Your task to perform on an android device: Go to ESPN.com Image 0: 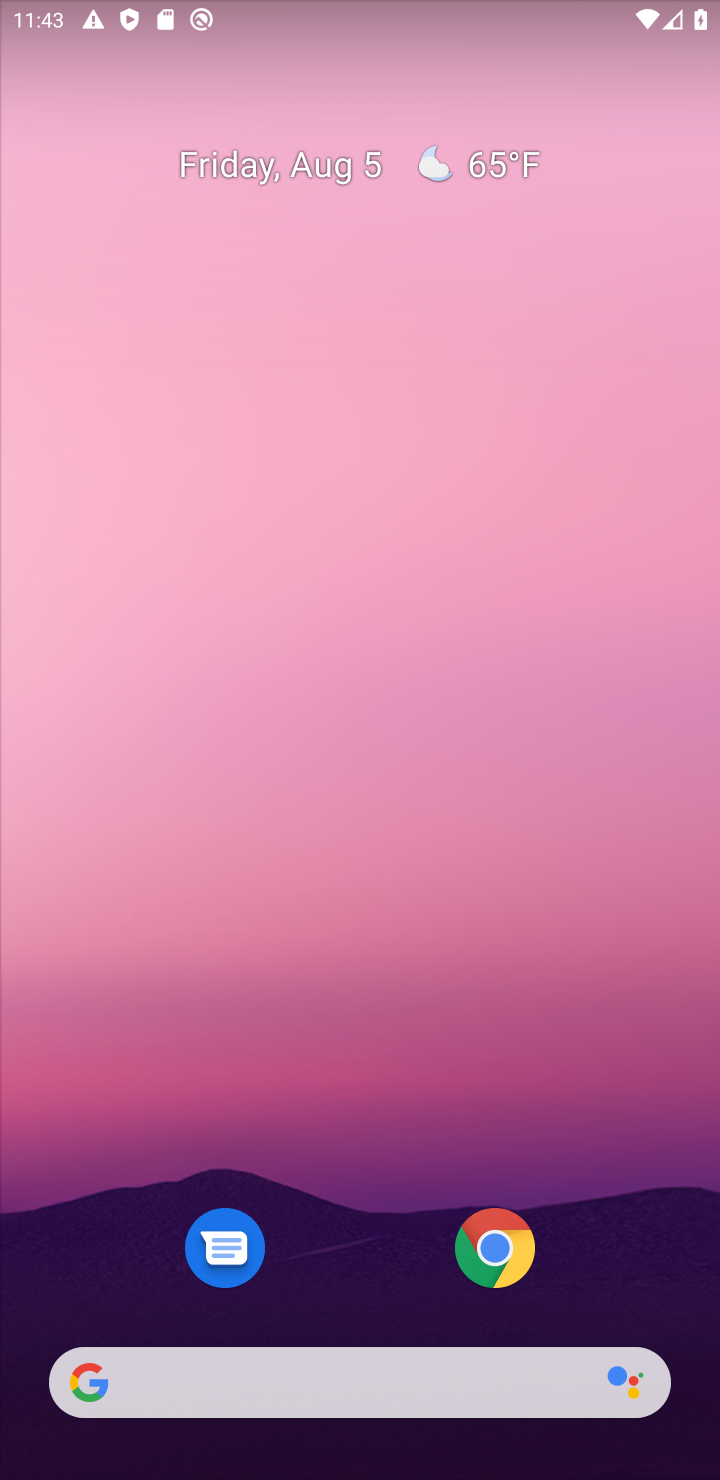
Step 0: press home button
Your task to perform on an android device: Go to ESPN.com Image 1: 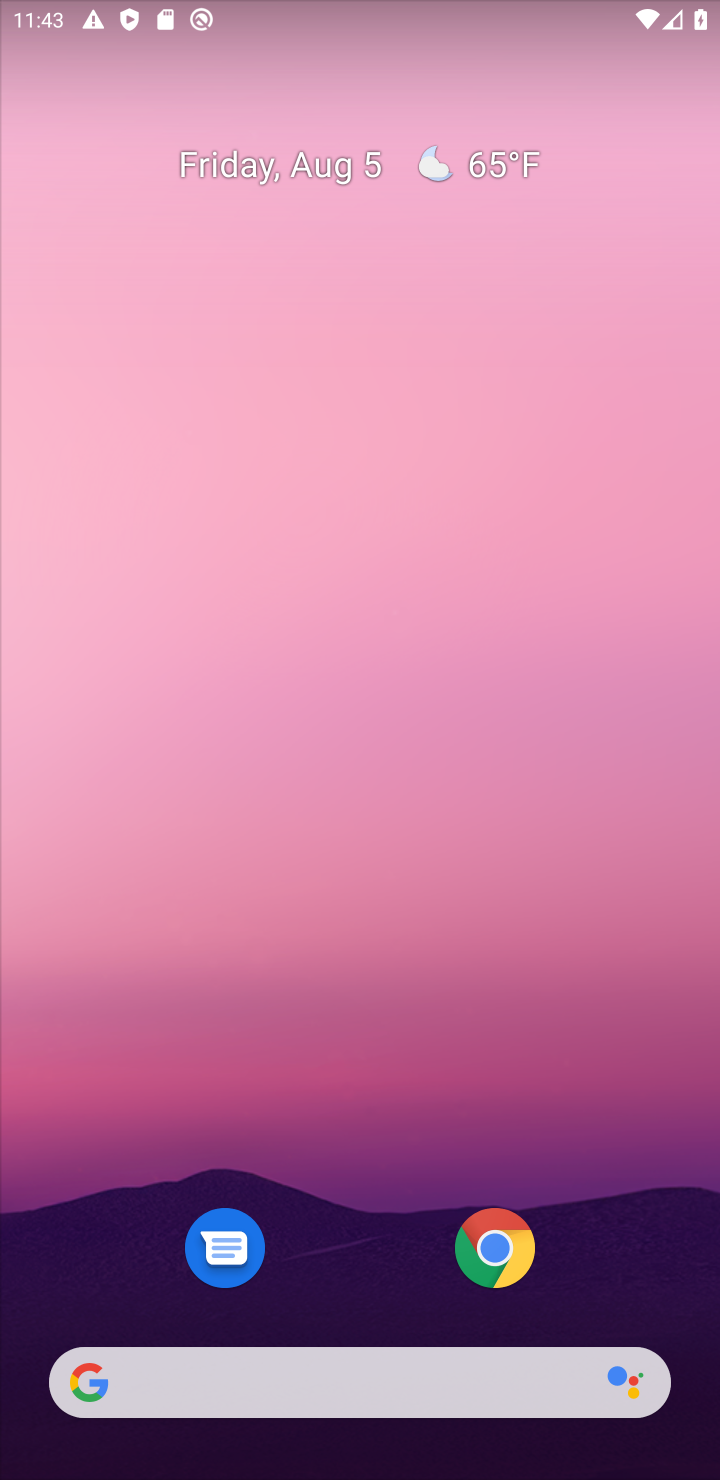
Step 1: click (486, 1243)
Your task to perform on an android device: Go to ESPN.com Image 2: 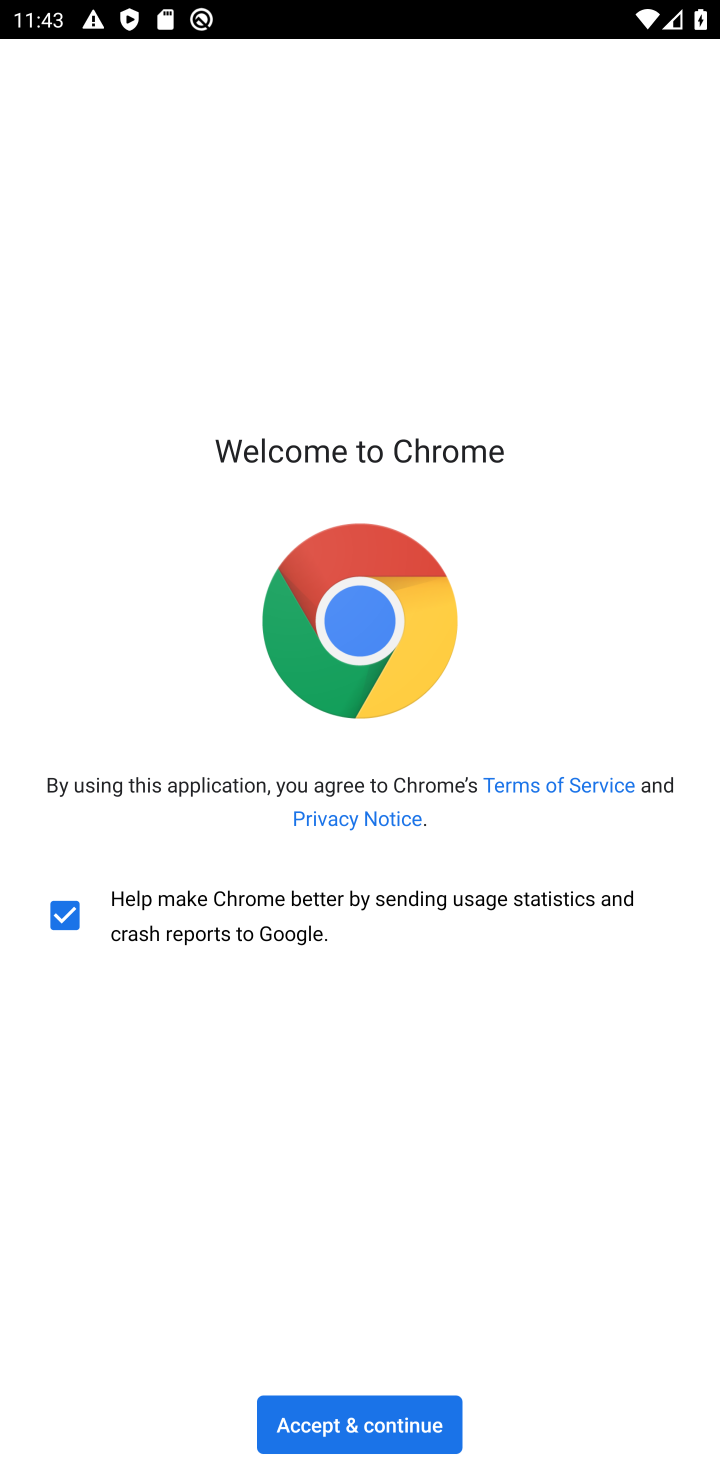
Step 2: click (357, 1416)
Your task to perform on an android device: Go to ESPN.com Image 3: 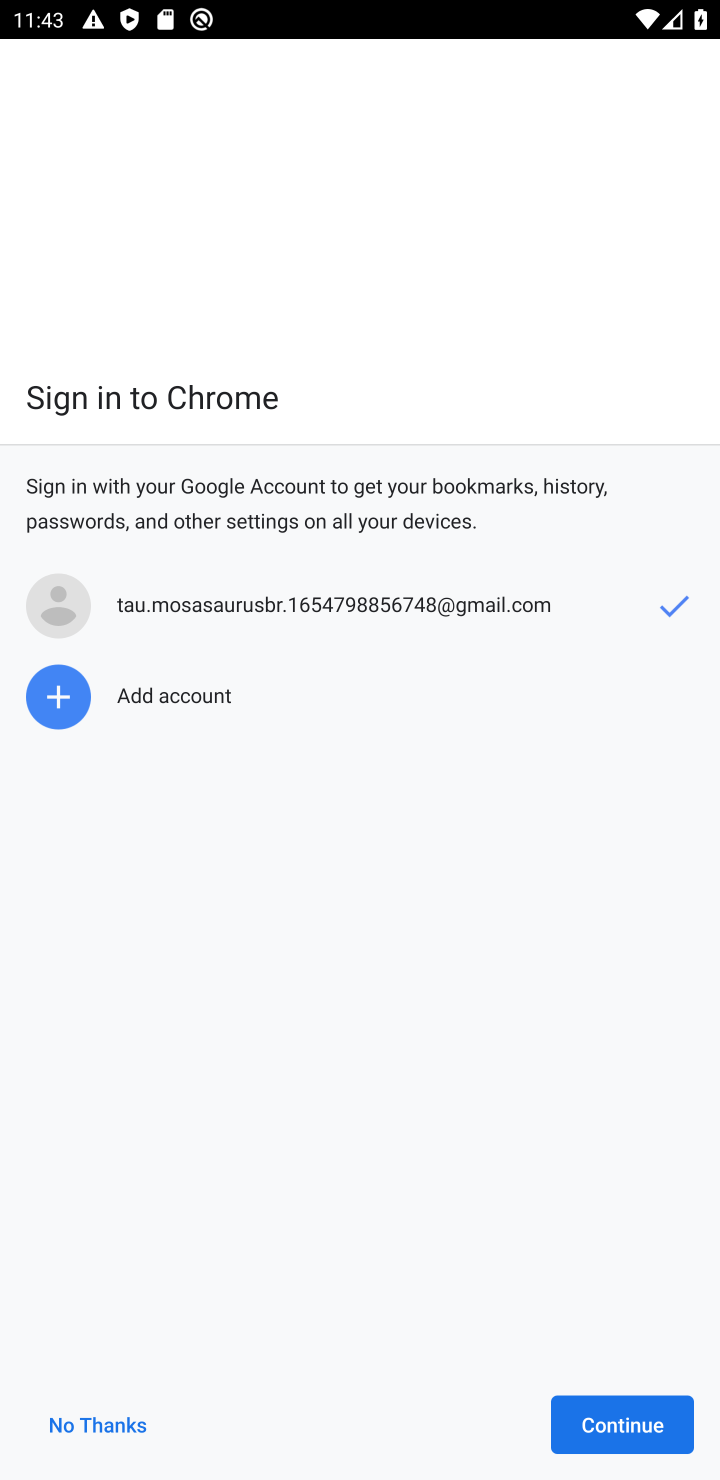
Step 3: click (619, 1420)
Your task to perform on an android device: Go to ESPN.com Image 4: 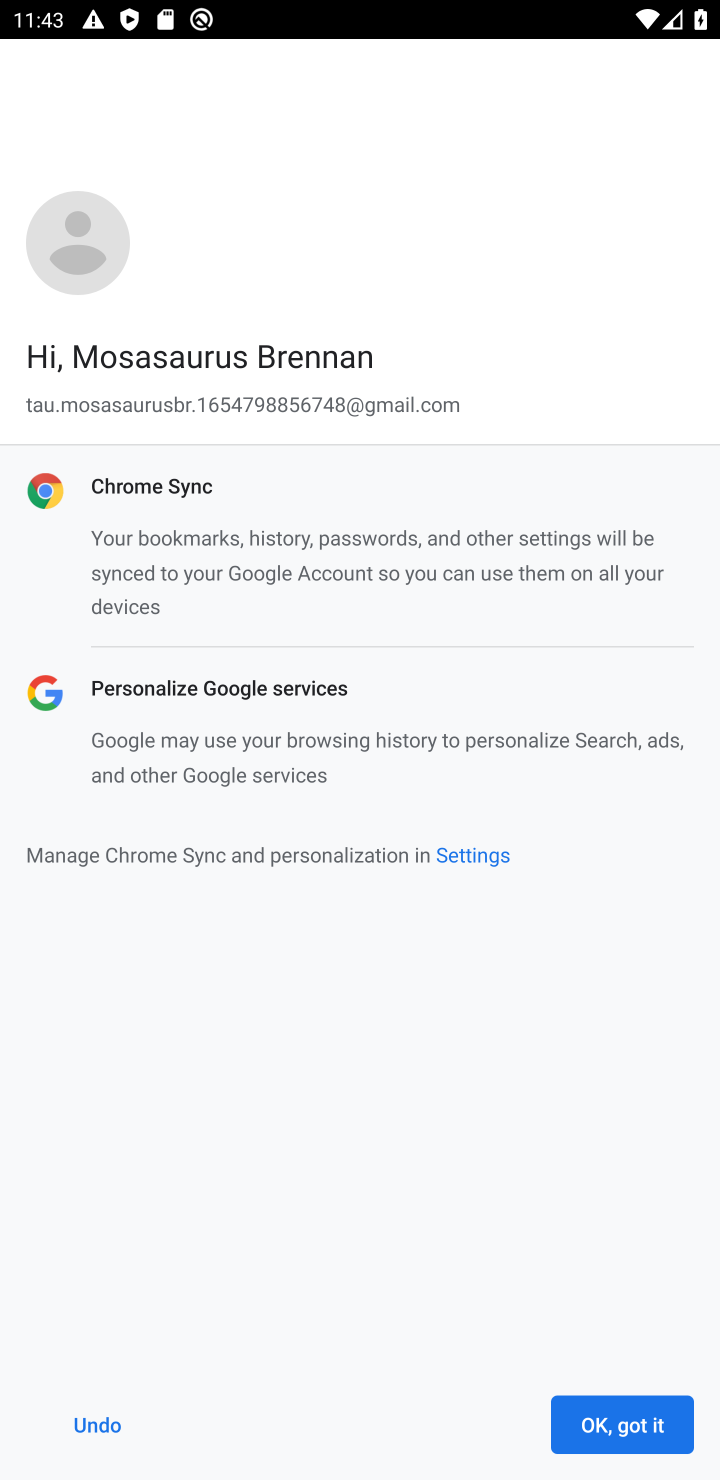
Step 4: click (621, 1420)
Your task to perform on an android device: Go to ESPN.com Image 5: 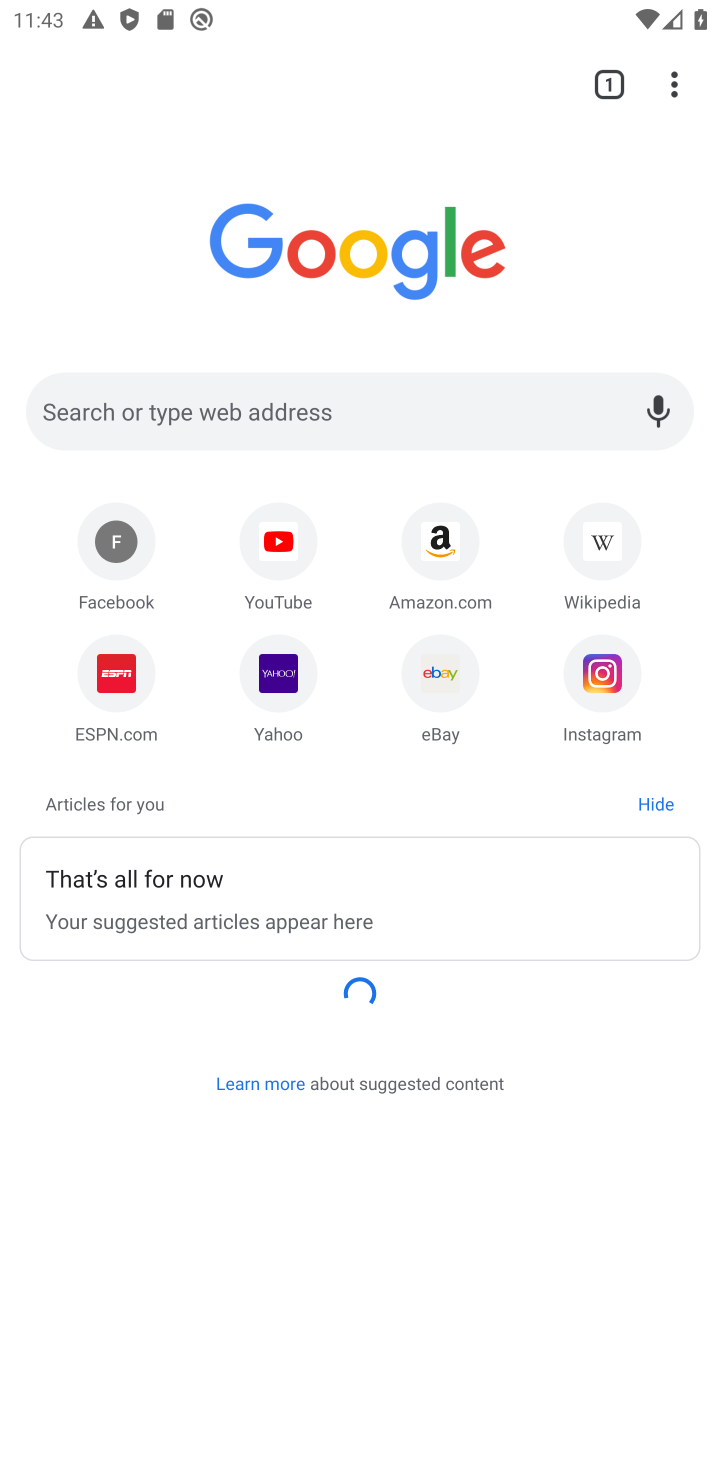
Step 5: click (115, 660)
Your task to perform on an android device: Go to ESPN.com Image 6: 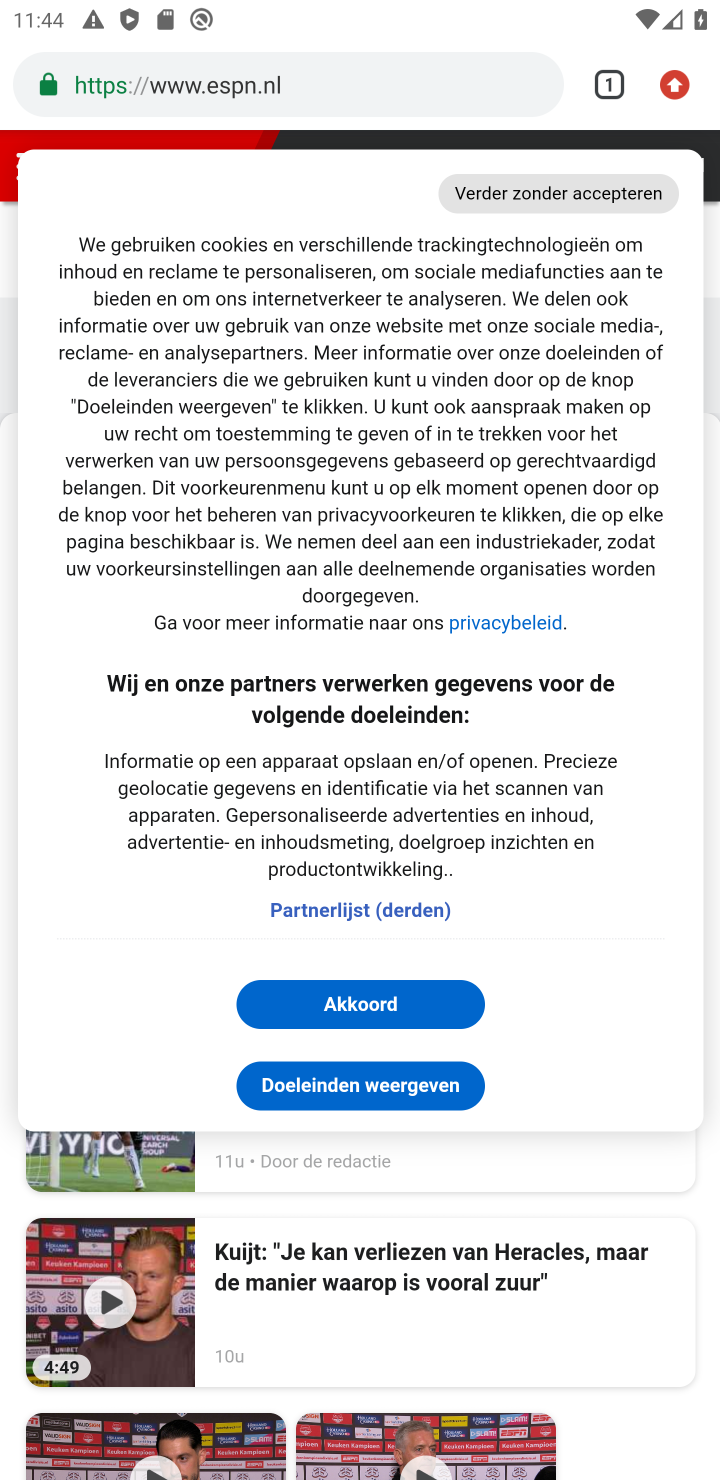
Step 6: drag from (470, 1185) to (460, 655)
Your task to perform on an android device: Go to ESPN.com Image 7: 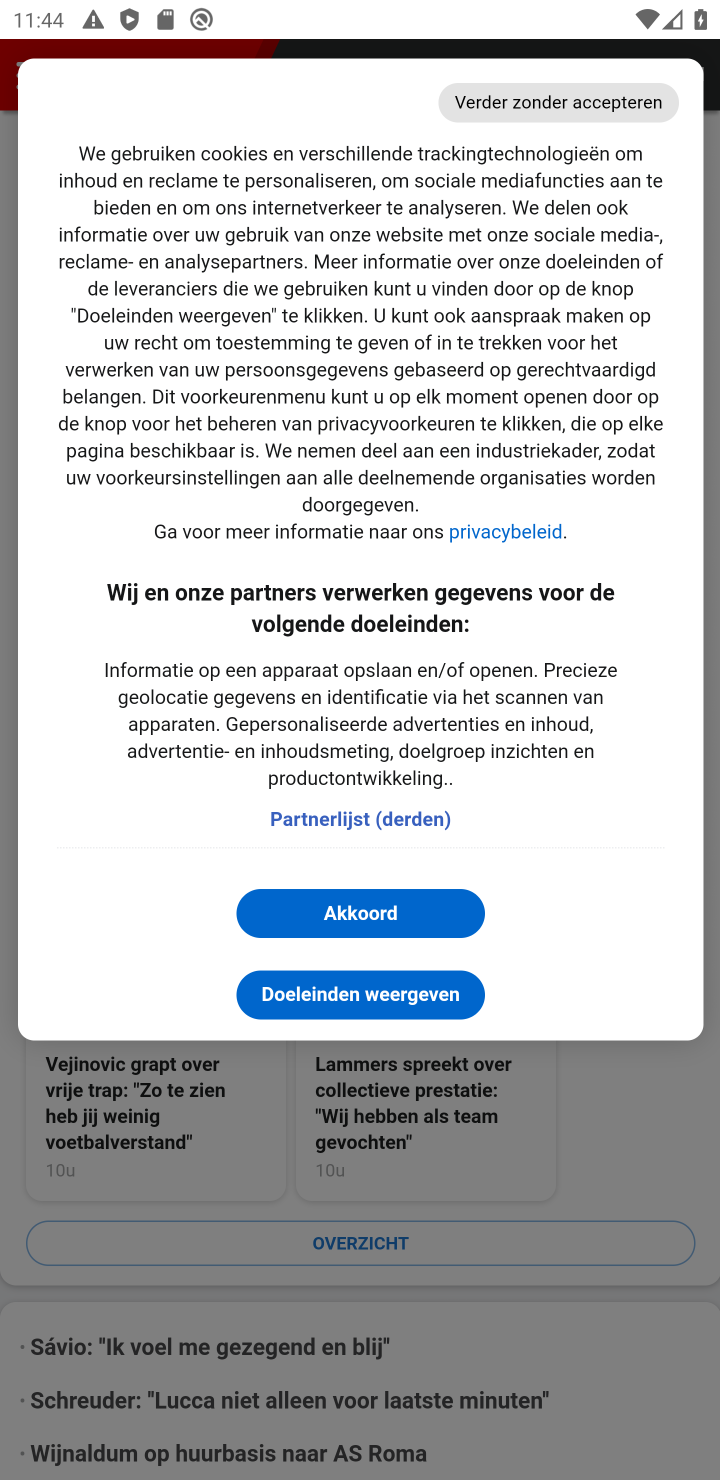
Step 7: click (354, 915)
Your task to perform on an android device: Go to ESPN.com Image 8: 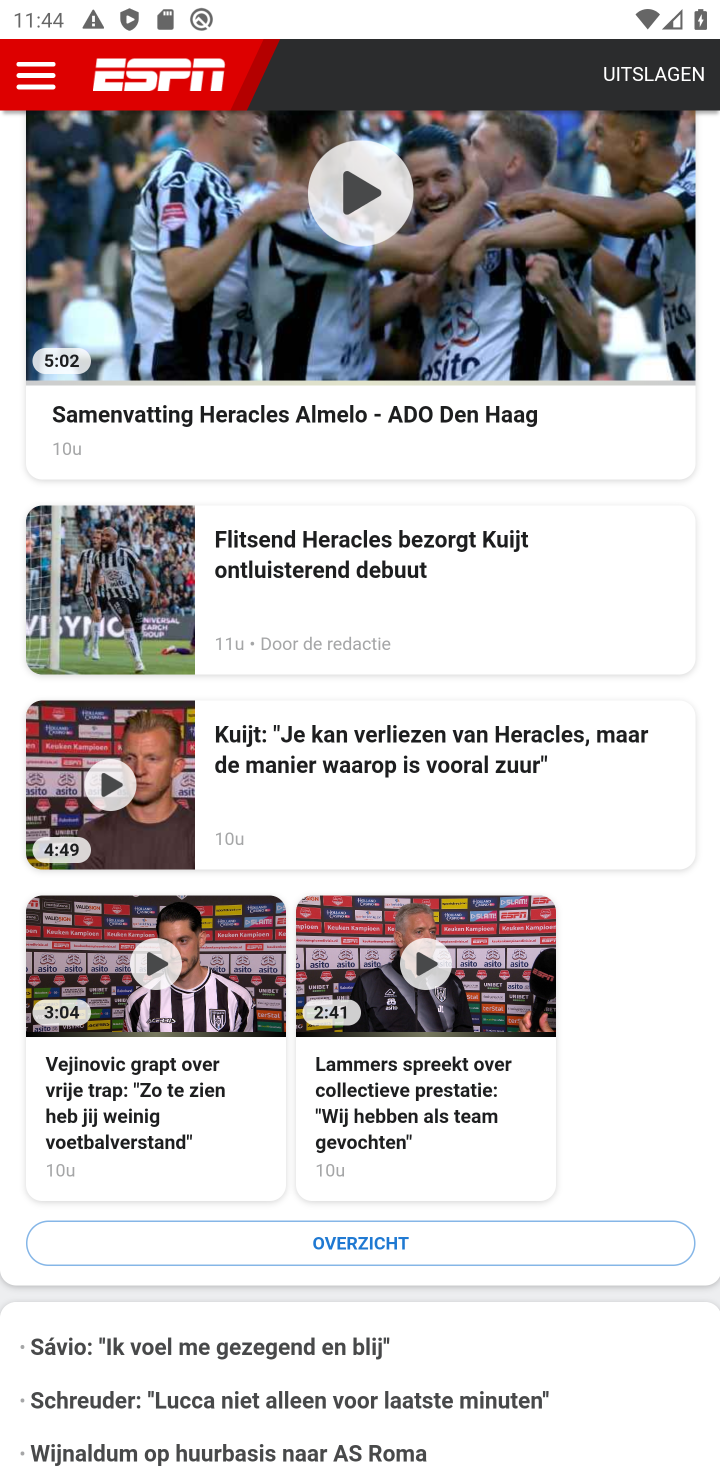
Step 8: task complete